Your task to perform on an android device: turn vacation reply on in the gmail app Image 0: 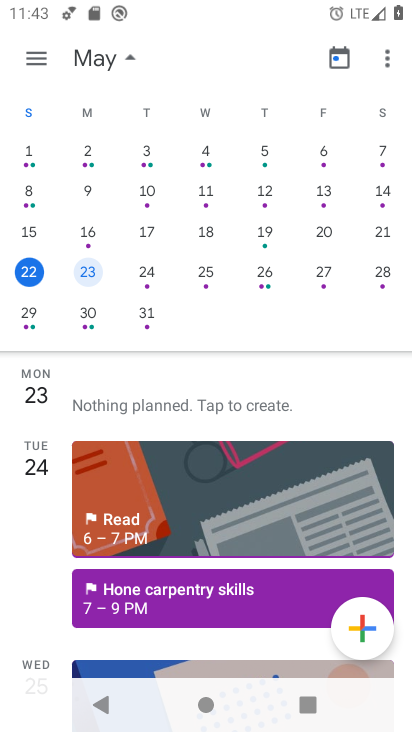
Step 0: press home button
Your task to perform on an android device: turn vacation reply on in the gmail app Image 1: 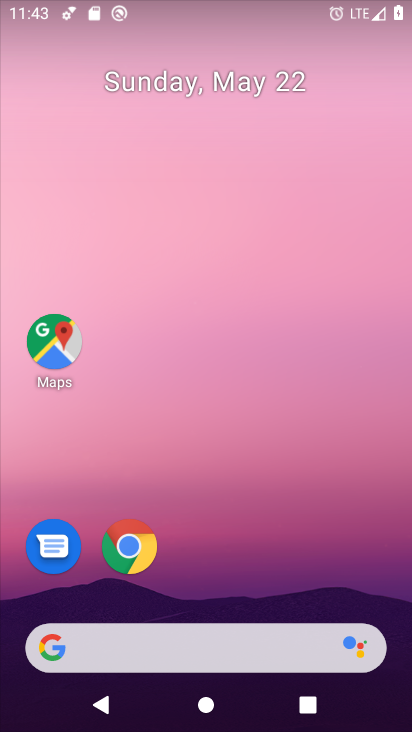
Step 1: drag from (268, 591) to (355, 2)
Your task to perform on an android device: turn vacation reply on in the gmail app Image 2: 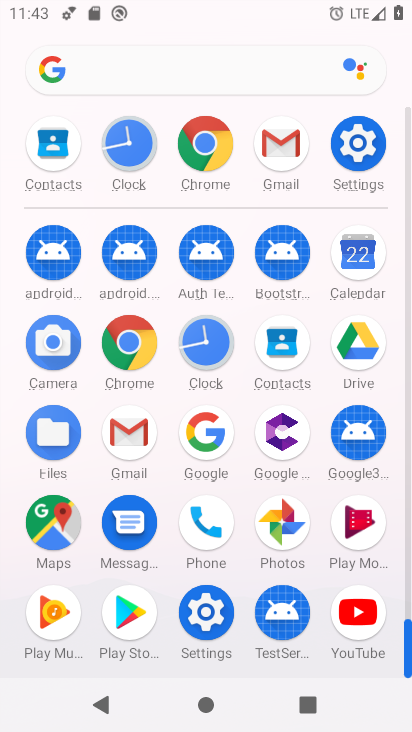
Step 2: click (293, 159)
Your task to perform on an android device: turn vacation reply on in the gmail app Image 3: 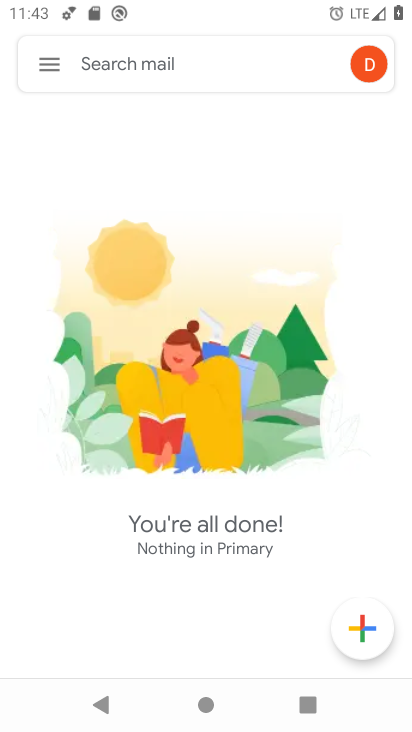
Step 3: click (50, 67)
Your task to perform on an android device: turn vacation reply on in the gmail app Image 4: 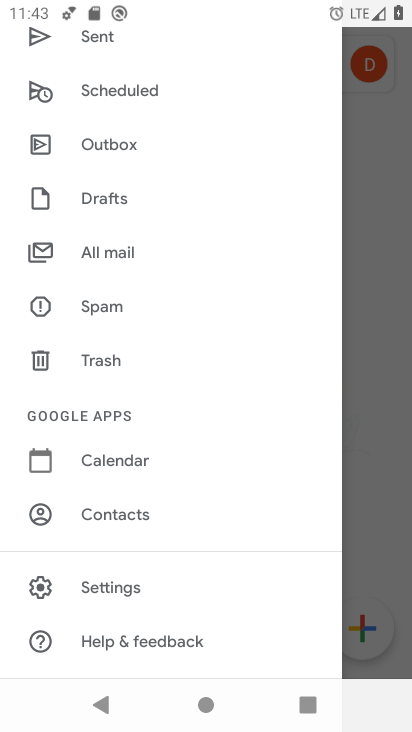
Step 4: click (125, 574)
Your task to perform on an android device: turn vacation reply on in the gmail app Image 5: 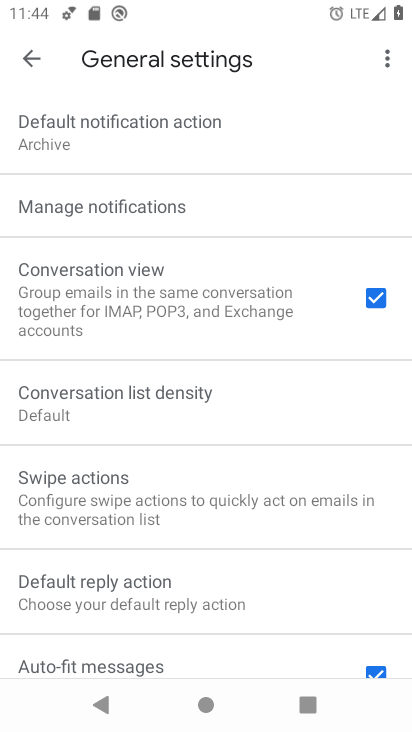
Step 5: click (27, 52)
Your task to perform on an android device: turn vacation reply on in the gmail app Image 6: 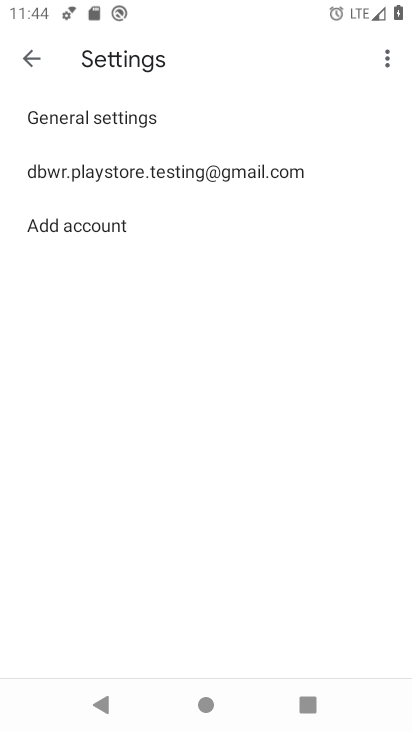
Step 6: click (128, 174)
Your task to perform on an android device: turn vacation reply on in the gmail app Image 7: 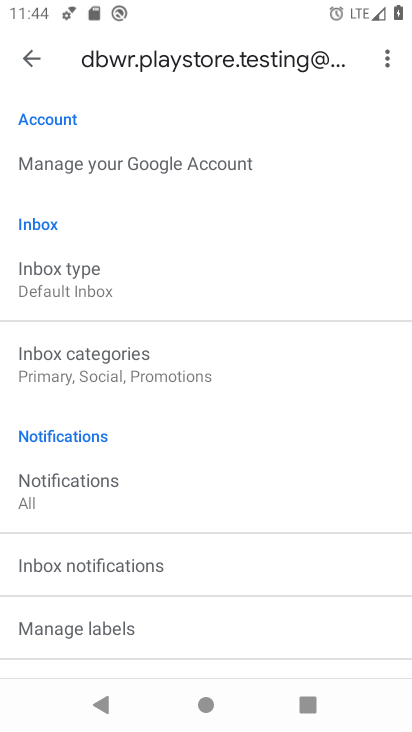
Step 7: drag from (138, 542) to (140, 294)
Your task to perform on an android device: turn vacation reply on in the gmail app Image 8: 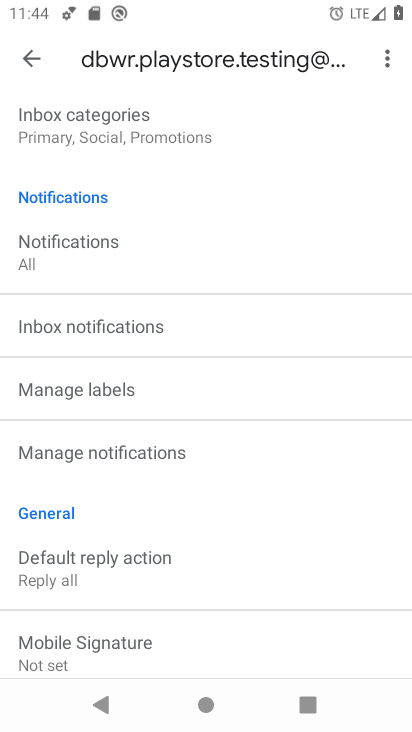
Step 8: drag from (160, 515) to (170, 334)
Your task to perform on an android device: turn vacation reply on in the gmail app Image 9: 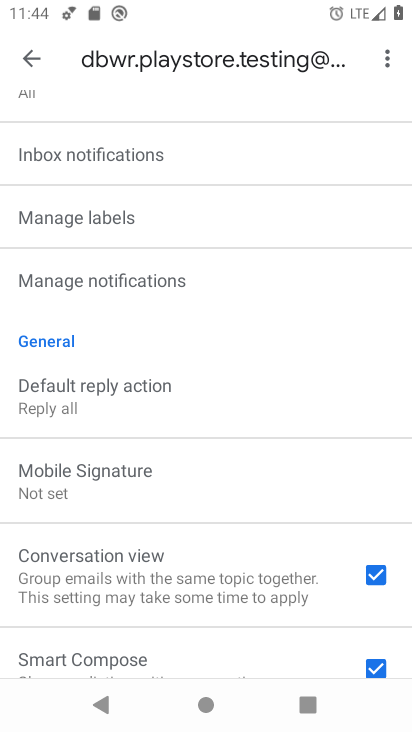
Step 9: drag from (174, 483) to (177, 422)
Your task to perform on an android device: turn vacation reply on in the gmail app Image 10: 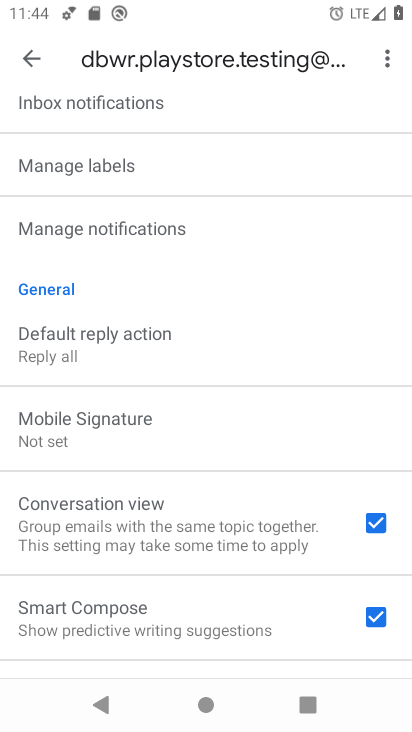
Step 10: click (199, 325)
Your task to perform on an android device: turn vacation reply on in the gmail app Image 11: 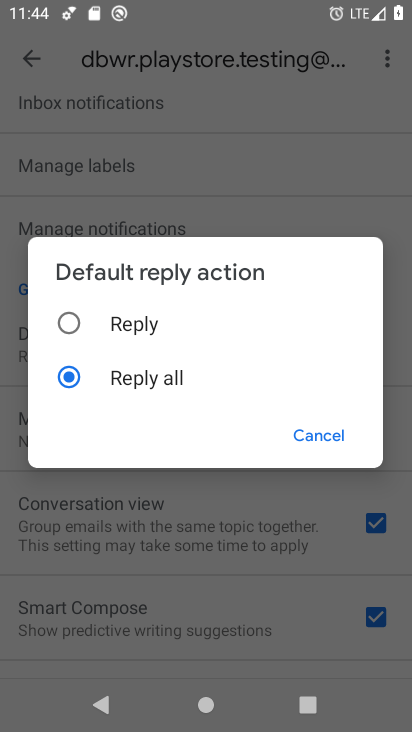
Step 11: click (315, 434)
Your task to perform on an android device: turn vacation reply on in the gmail app Image 12: 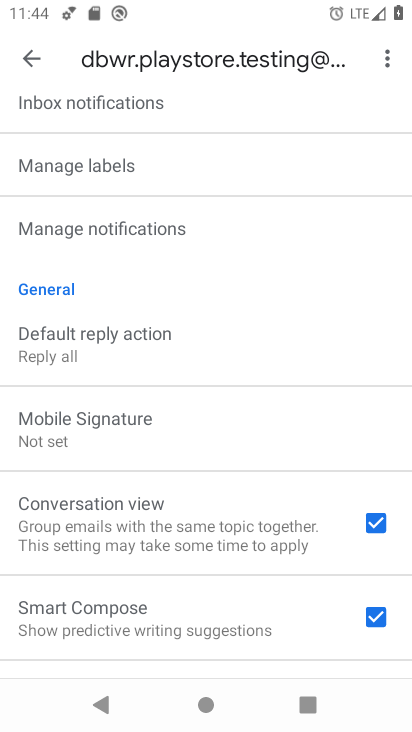
Step 12: drag from (257, 552) to (324, 187)
Your task to perform on an android device: turn vacation reply on in the gmail app Image 13: 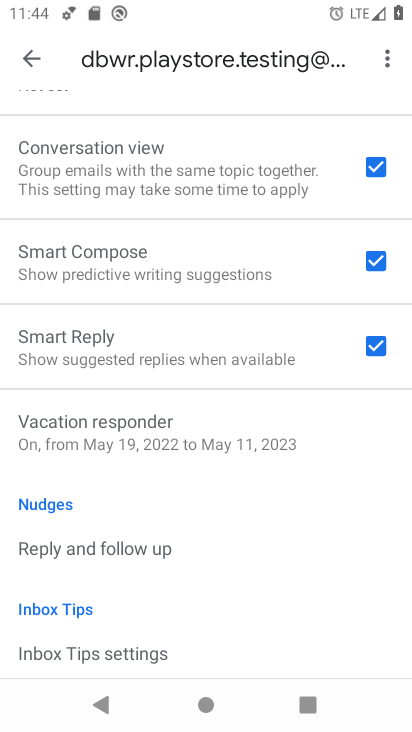
Step 13: click (285, 415)
Your task to perform on an android device: turn vacation reply on in the gmail app Image 14: 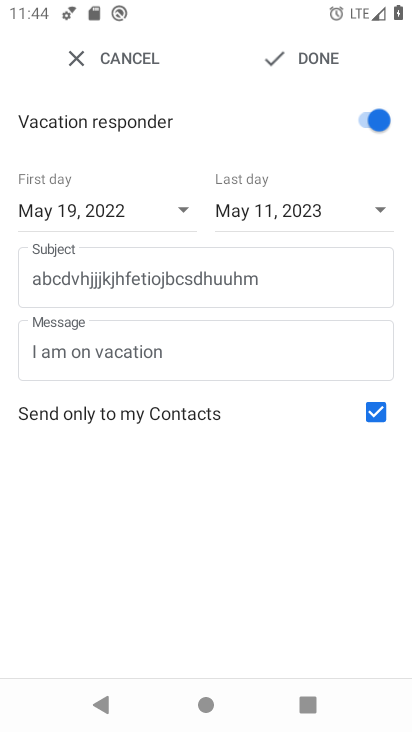
Step 14: task complete